Your task to perform on an android device: What's on my calendar tomorrow? Image 0: 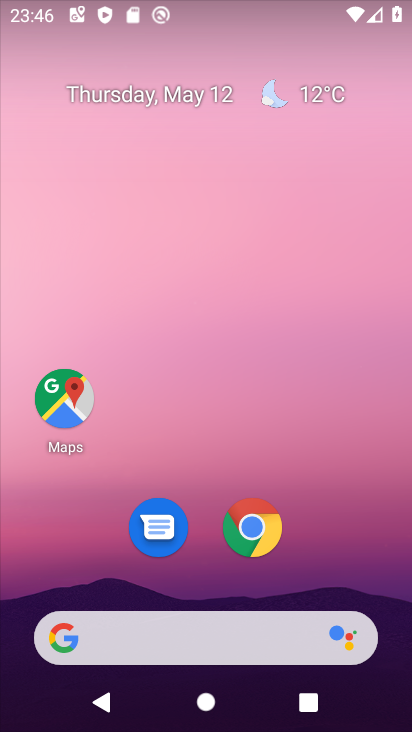
Step 0: drag from (75, 611) to (260, 271)
Your task to perform on an android device: What's on my calendar tomorrow? Image 1: 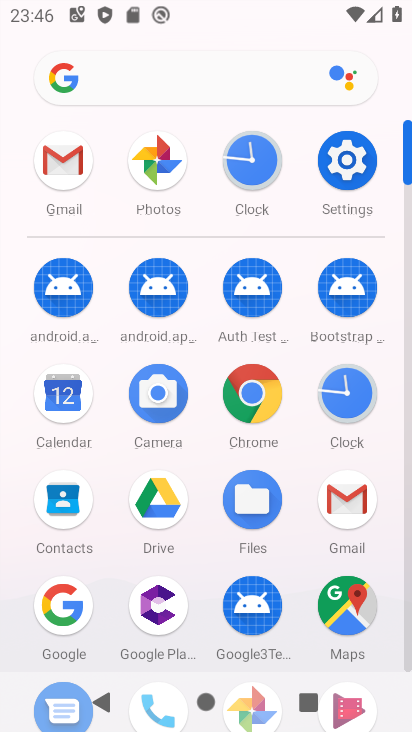
Step 1: click (88, 399)
Your task to perform on an android device: What's on my calendar tomorrow? Image 2: 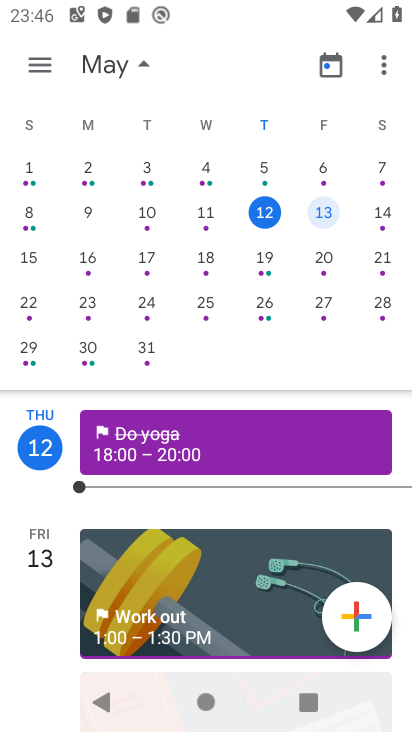
Step 2: click (341, 209)
Your task to perform on an android device: What's on my calendar tomorrow? Image 3: 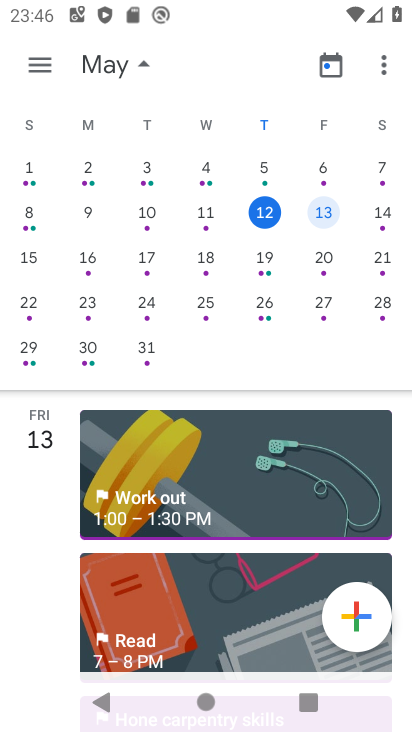
Step 3: task complete